Your task to perform on an android device: change the clock style Image 0: 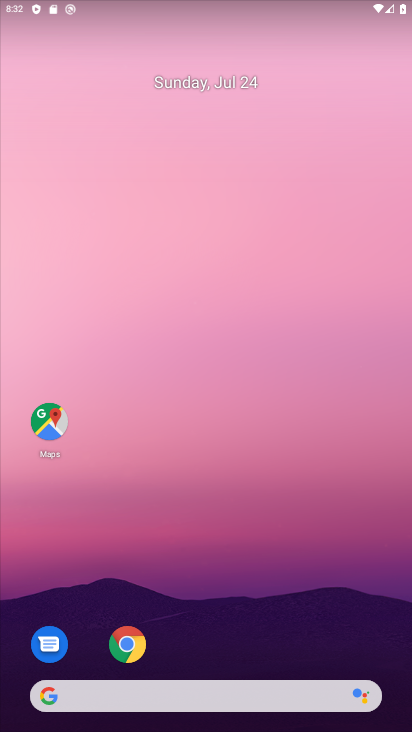
Step 0: drag from (297, 606) to (352, 31)
Your task to perform on an android device: change the clock style Image 1: 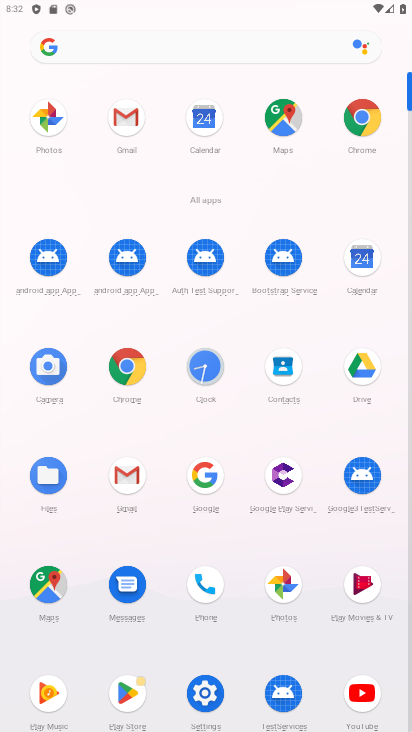
Step 1: click (200, 364)
Your task to perform on an android device: change the clock style Image 2: 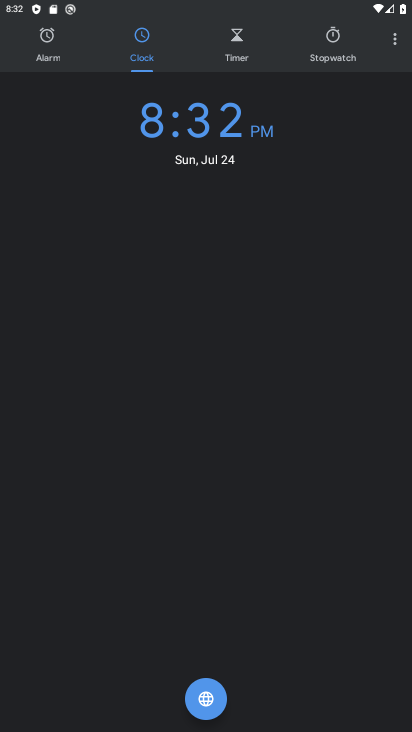
Step 2: click (400, 40)
Your task to perform on an android device: change the clock style Image 3: 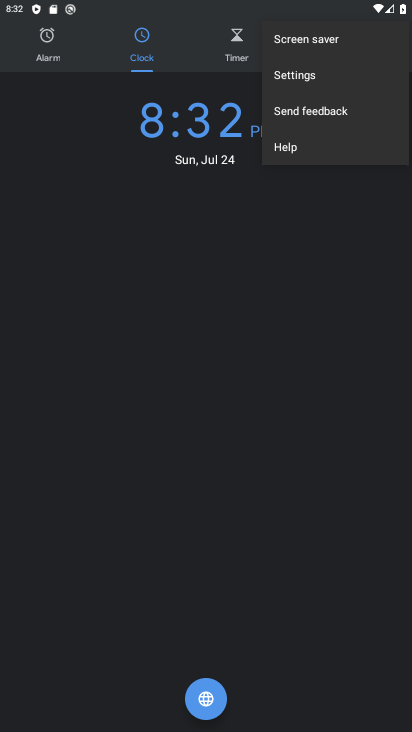
Step 3: click (300, 74)
Your task to perform on an android device: change the clock style Image 4: 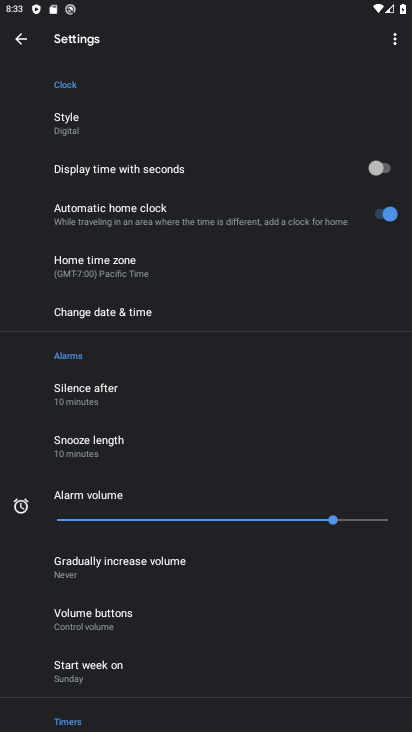
Step 4: click (112, 125)
Your task to perform on an android device: change the clock style Image 5: 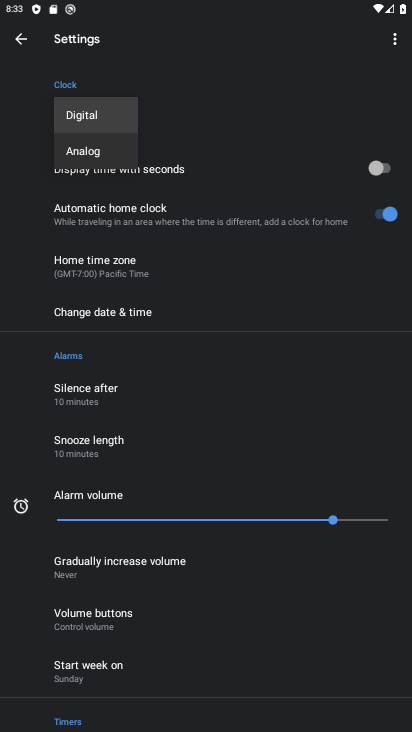
Step 5: click (109, 122)
Your task to perform on an android device: change the clock style Image 6: 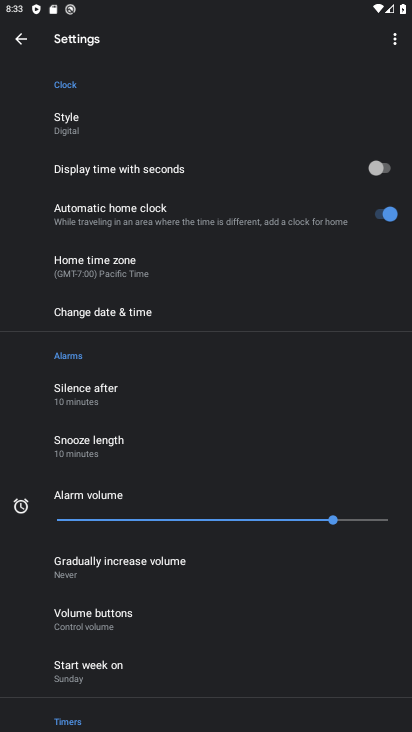
Step 6: task complete